Your task to perform on an android device: set an alarm Image 0: 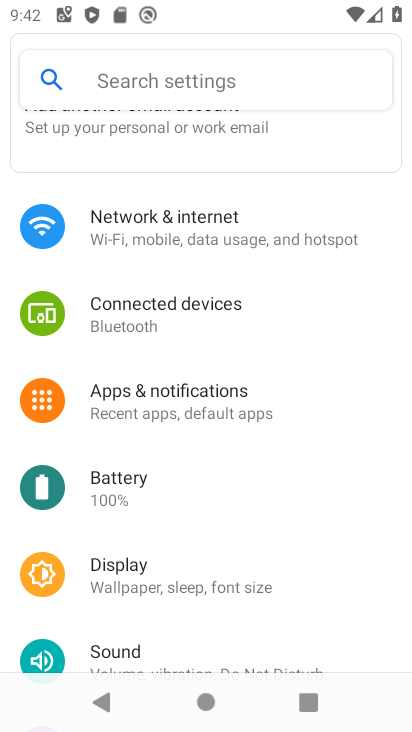
Step 0: press home button
Your task to perform on an android device: set an alarm Image 1: 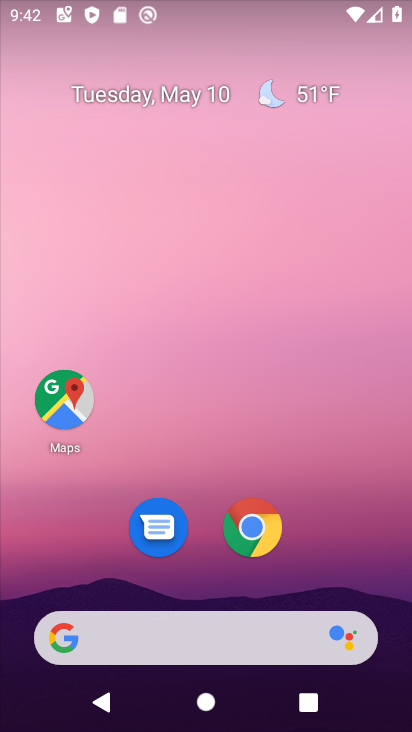
Step 1: drag from (226, 716) to (239, 135)
Your task to perform on an android device: set an alarm Image 2: 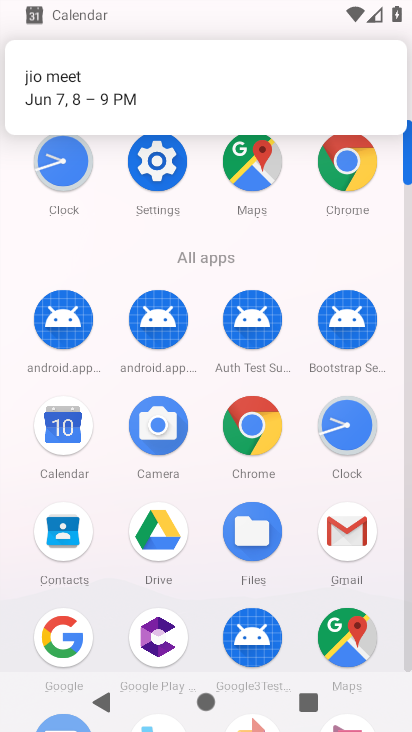
Step 2: click (349, 421)
Your task to perform on an android device: set an alarm Image 3: 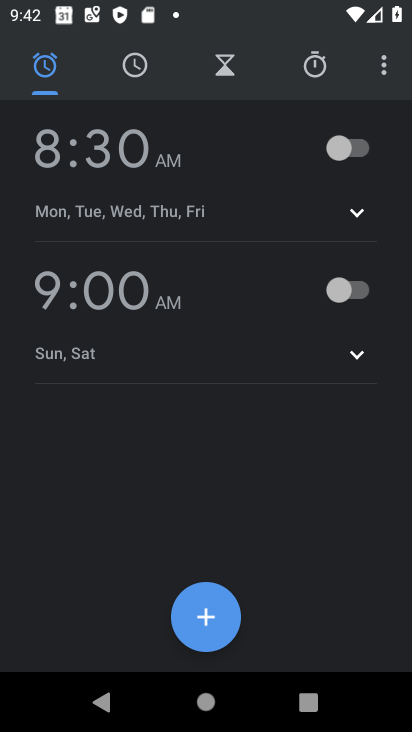
Step 3: click (206, 611)
Your task to perform on an android device: set an alarm Image 4: 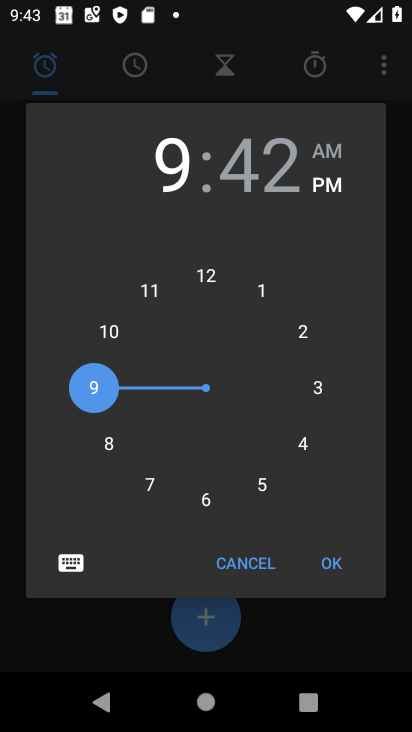
Step 4: click (208, 499)
Your task to perform on an android device: set an alarm Image 5: 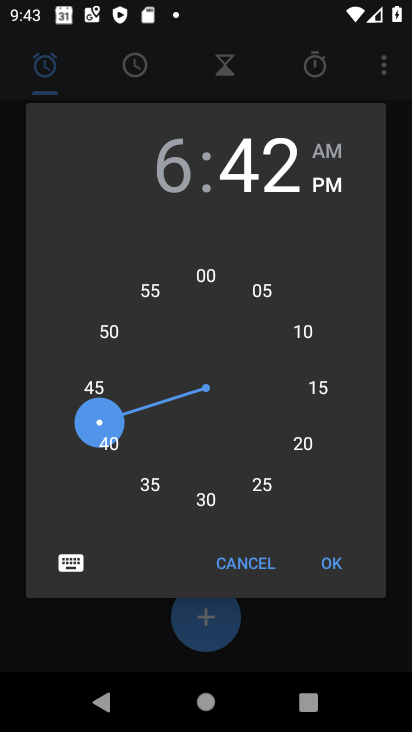
Step 5: click (208, 499)
Your task to perform on an android device: set an alarm Image 6: 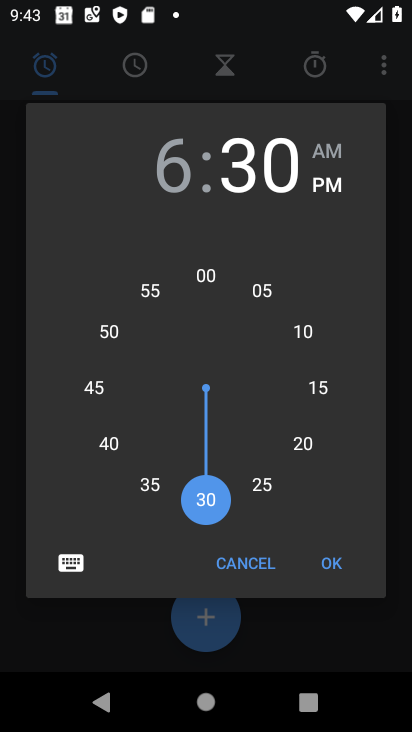
Step 6: click (343, 557)
Your task to perform on an android device: set an alarm Image 7: 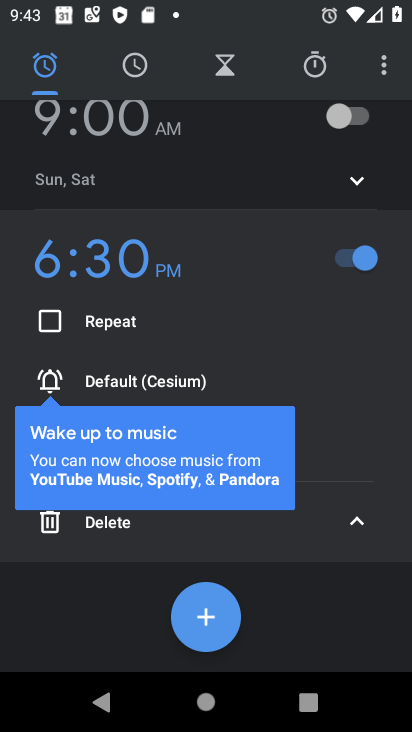
Step 7: task complete